Your task to perform on an android device: Open calendar and show me the fourth week of next month Image 0: 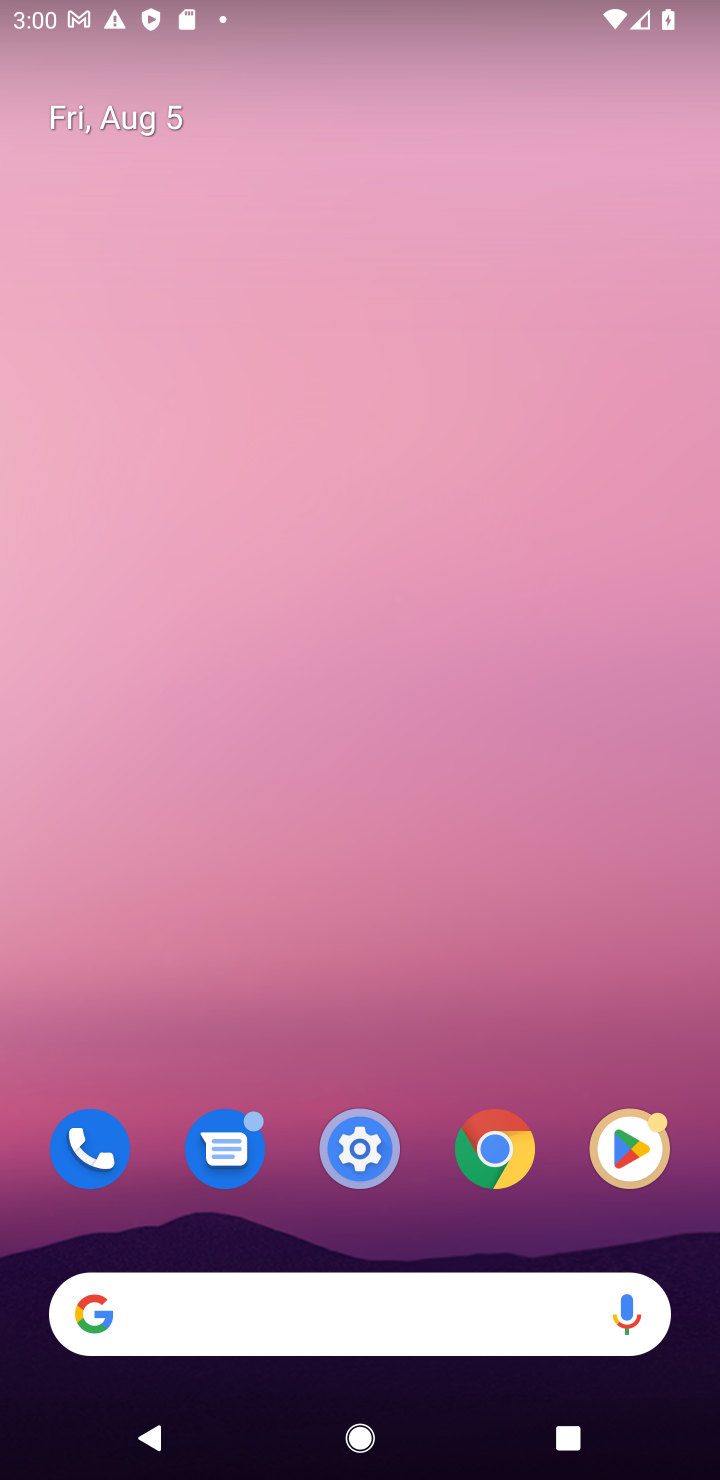
Step 0: drag from (324, 947) to (449, 120)
Your task to perform on an android device: Open calendar and show me the fourth week of next month Image 1: 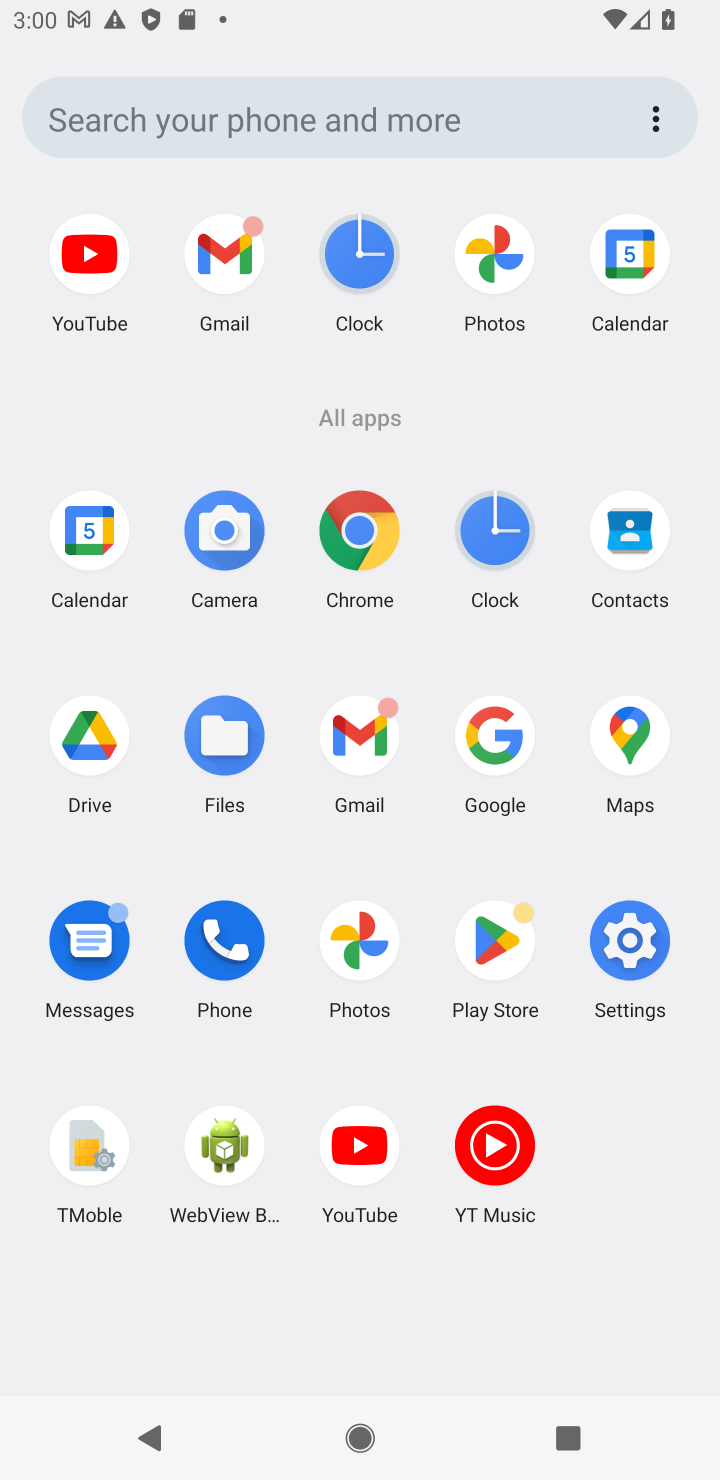
Step 1: click (647, 244)
Your task to perform on an android device: Open calendar and show me the fourth week of next month Image 2: 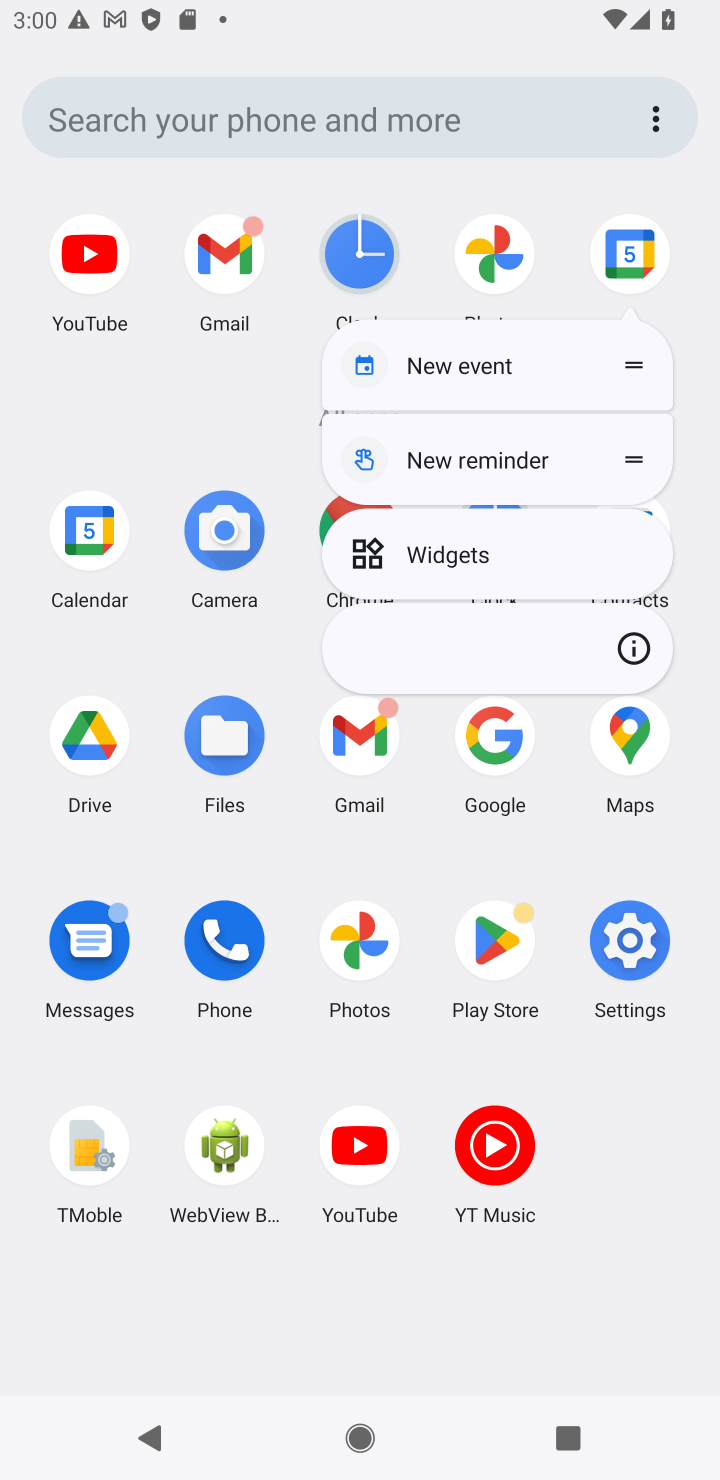
Step 2: click (650, 211)
Your task to perform on an android device: Open calendar and show me the fourth week of next month Image 3: 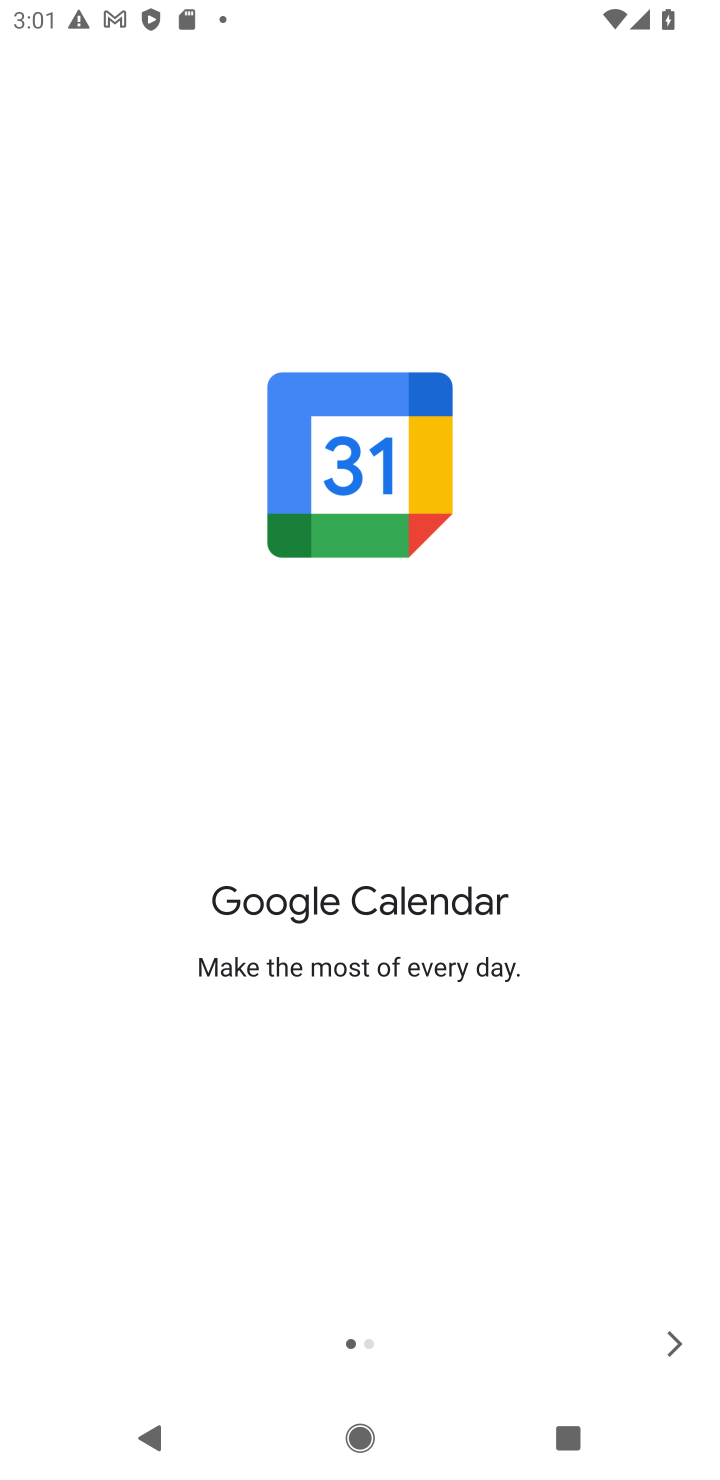
Step 3: click (682, 1355)
Your task to perform on an android device: Open calendar and show me the fourth week of next month Image 4: 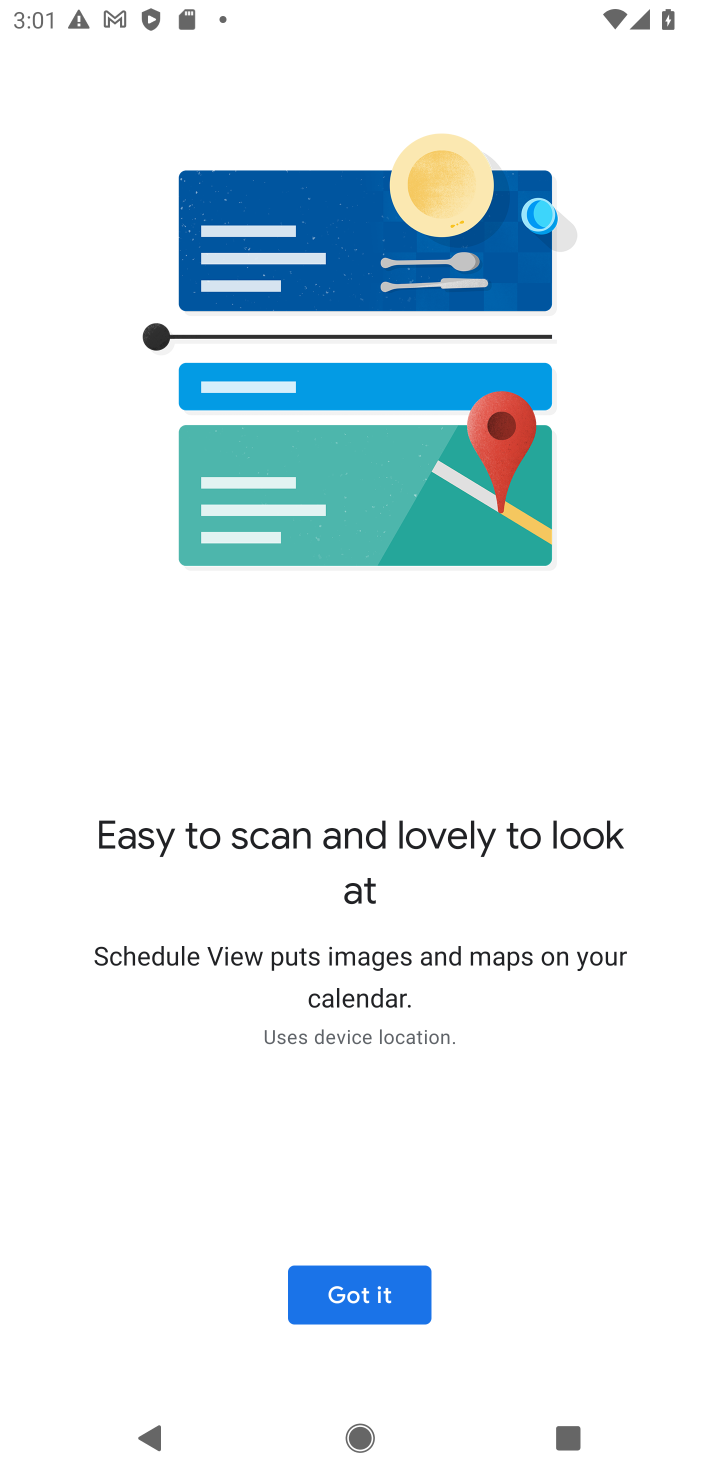
Step 4: click (679, 1338)
Your task to perform on an android device: Open calendar and show me the fourth week of next month Image 5: 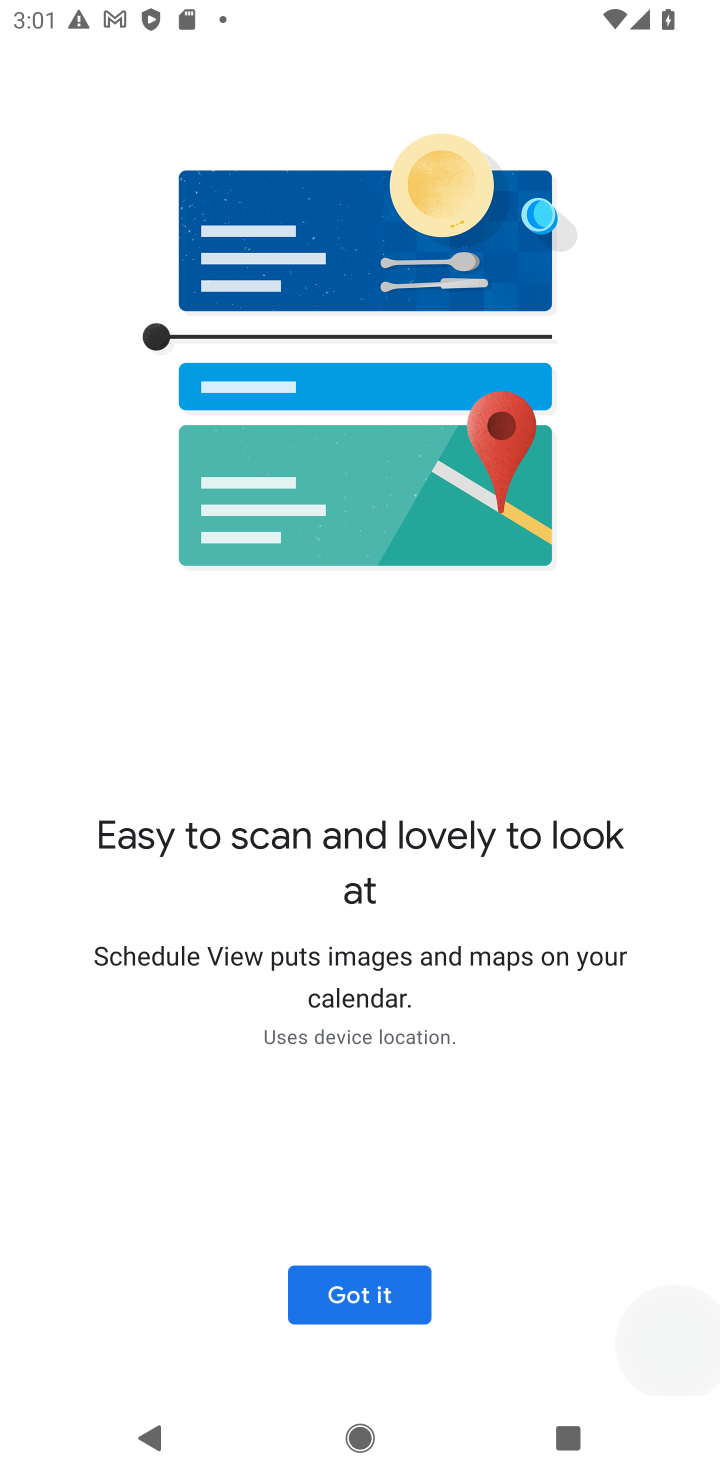
Step 5: click (415, 1312)
Your task to perform on an android device: Open calendar and show me the fourth week of next month Image 6: 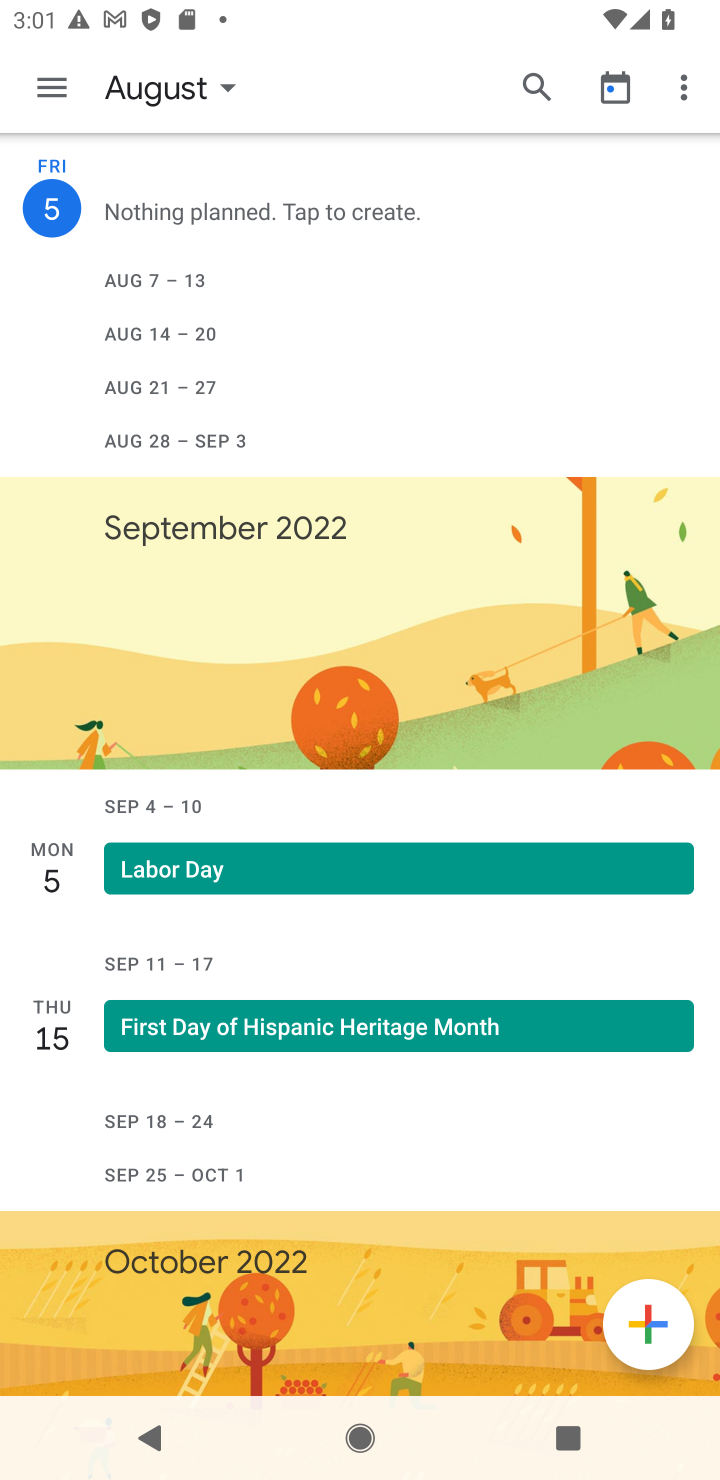
Step 6: click (204, 91)
Your task to perform on an android device: Open calendar and show me the fourth week of next month Image 7: 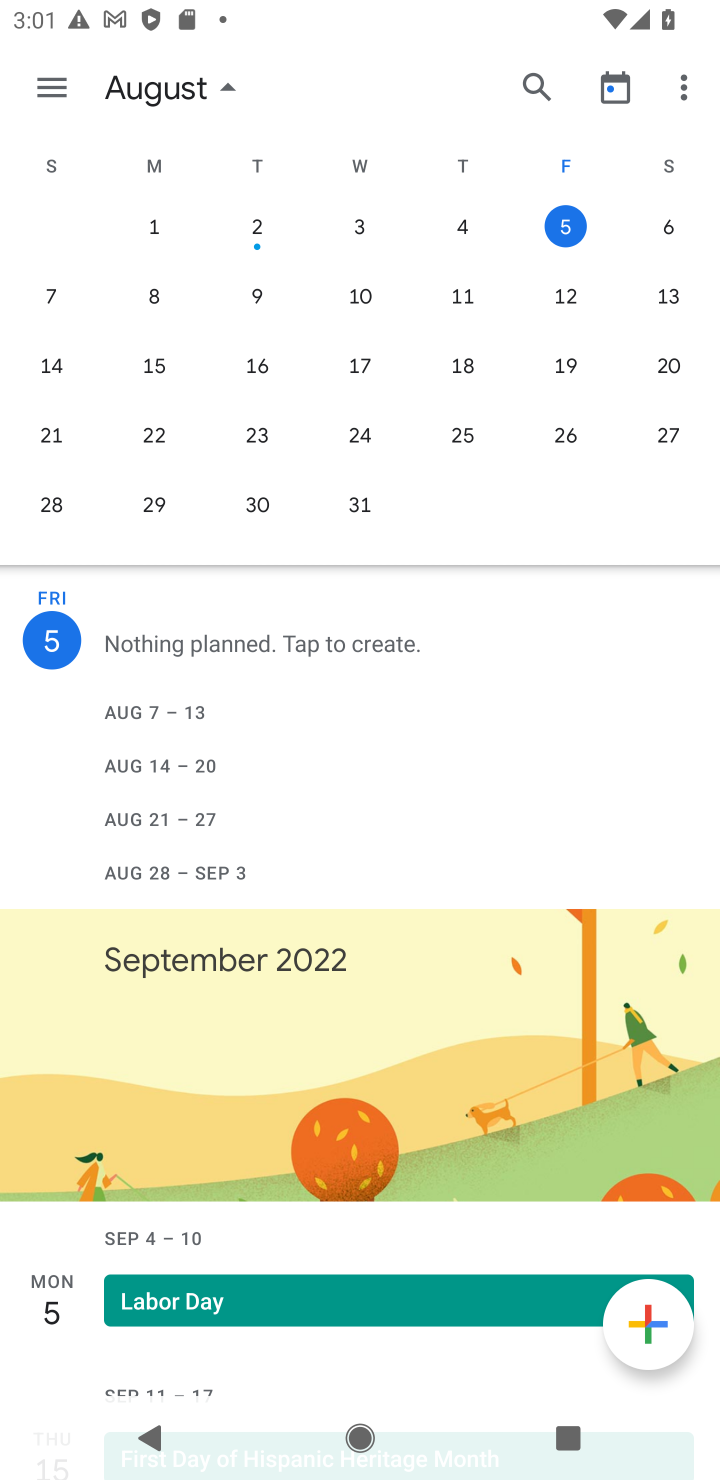
Step 7: drag from (668, 304) to (144, 278)
Your task to perform on an android device: Open calendar and show me the fourth week of next month Image 8: 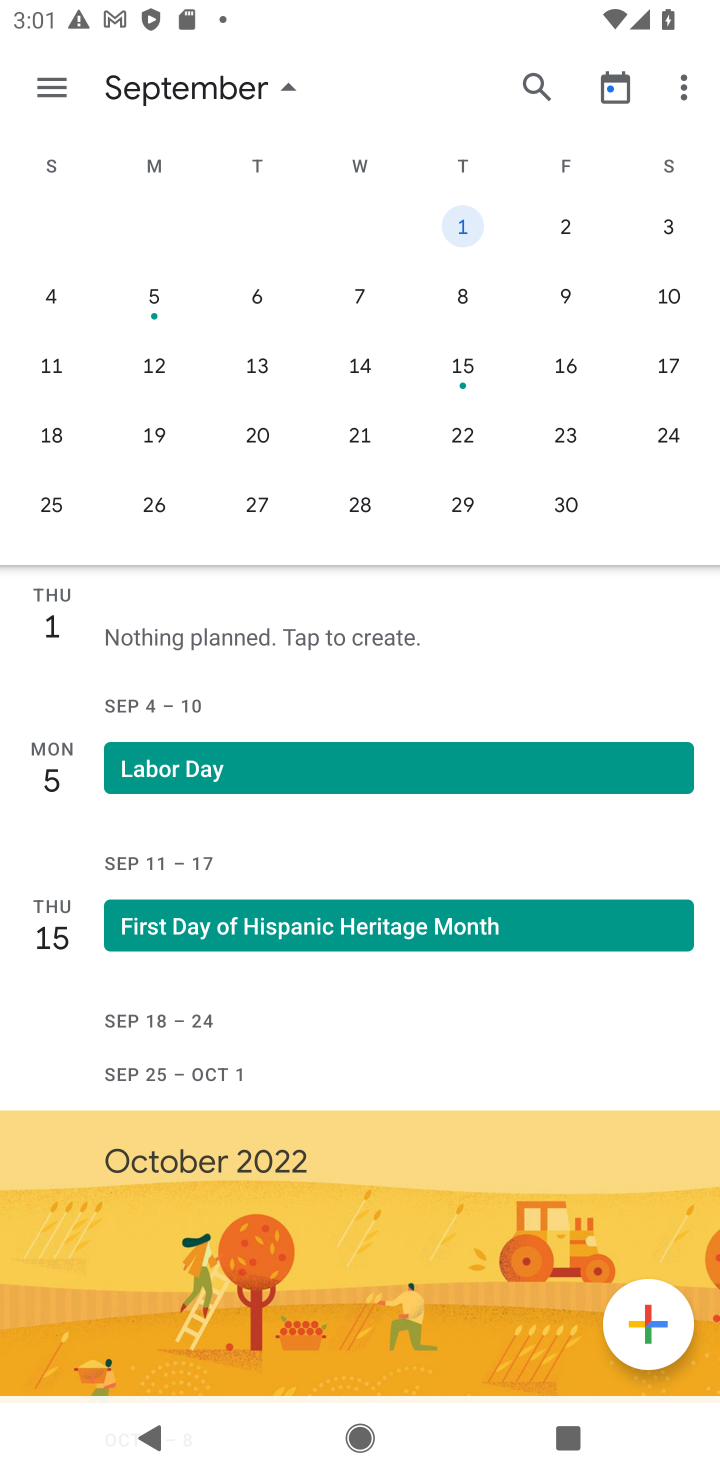
Step 8: click (164, 439)
Your task to perform on an android device: Open calendar and show me the fourth week of next month Image 9: 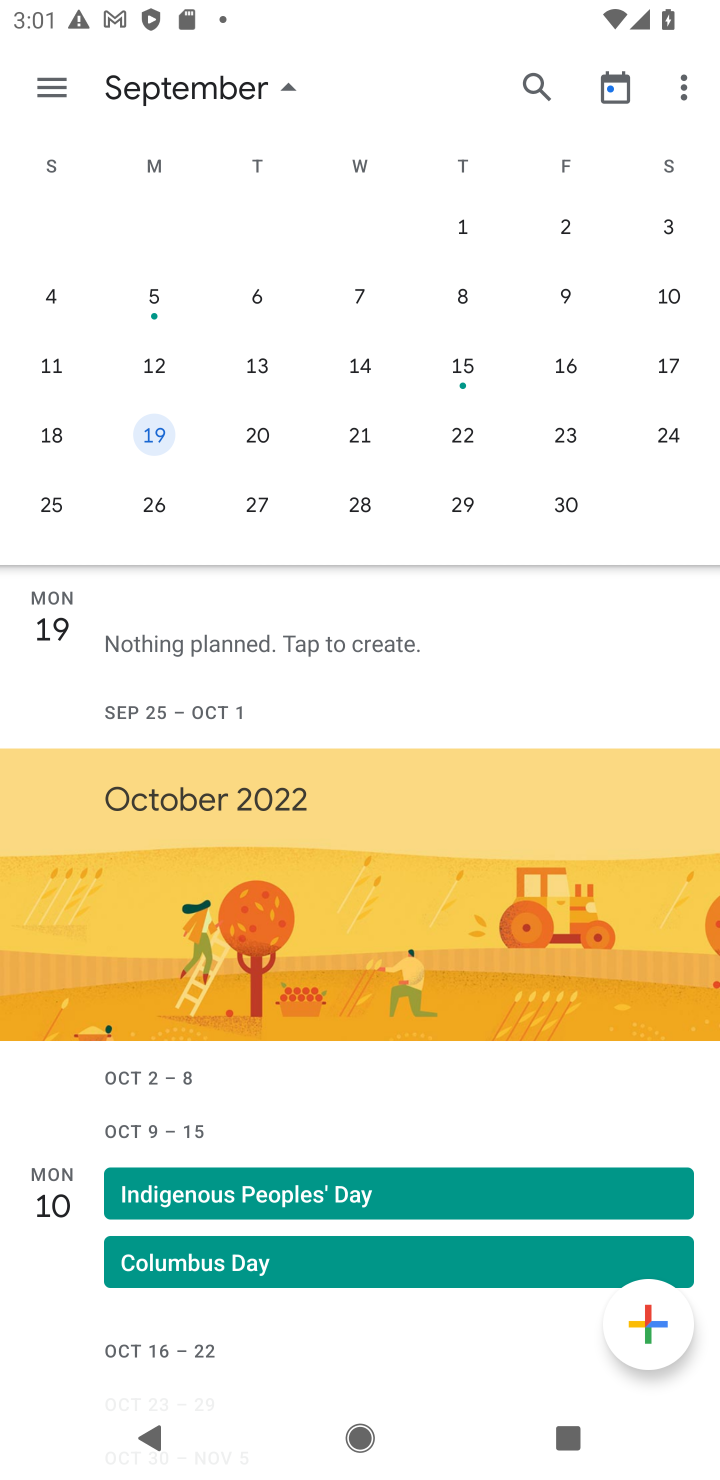
Step 9: task complete